Your task to perform on an android device: What's the weather going to be tomorrow? Image 0: 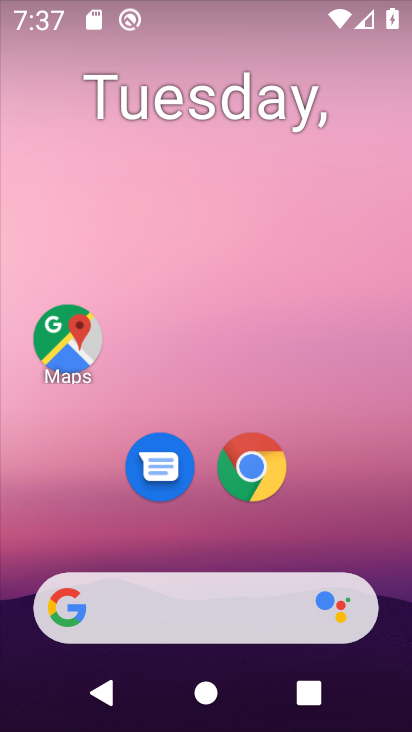
Step 0: drag from (1, 268) to (380, 237)
Your task to perform on an android device: What's the weather going to be tomorrow? Image 1: 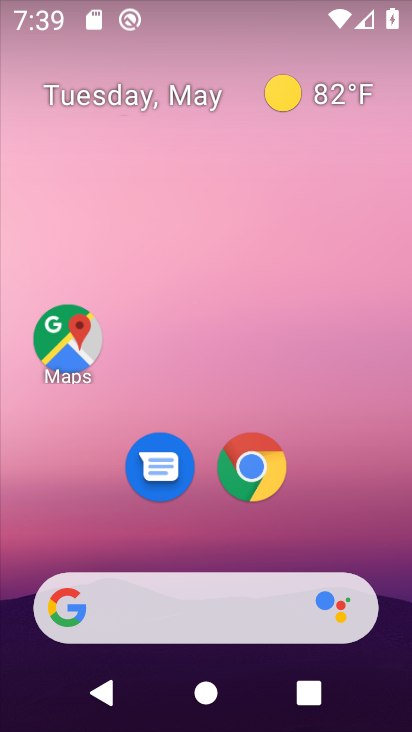
Step 1: click (324, 83)
Your task to perform on an android device: What's the weather going to be tomorrow? Image 2: 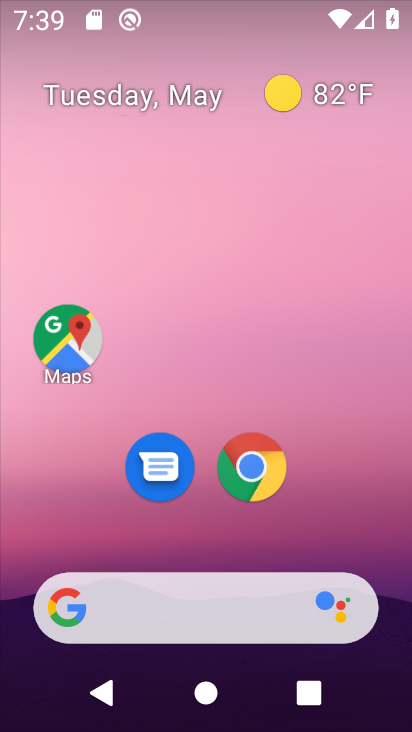
Step 2: click (328, 98)
Your task to perform on an android device: What's the weather going to be tomorrow? Image 3: 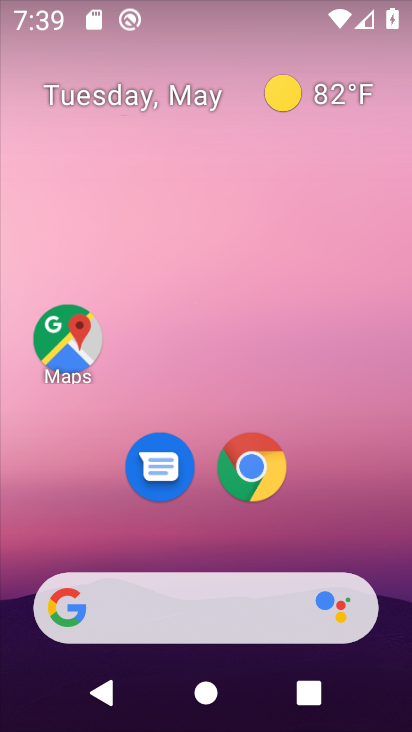
Step 3: drag from (1, 190) to (411, 195)
Your task to perform on an android device: What's the weather going to be tomorrow? Image 4: 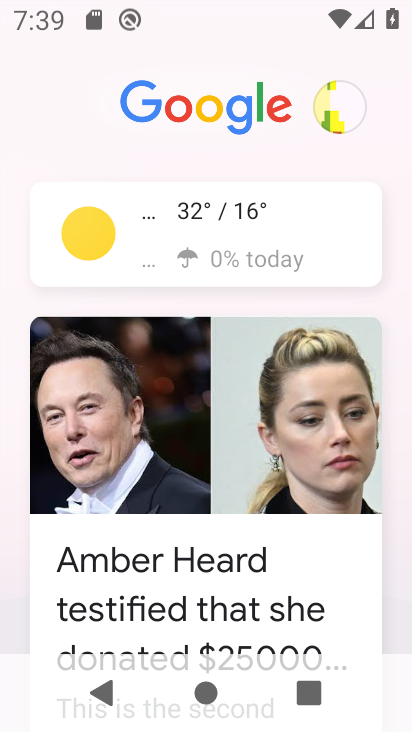
Step 4: drag from (294, 583) to (260, 390)
Your task to perform on an android device: What's the weather going to be tomorrow? Image 5: 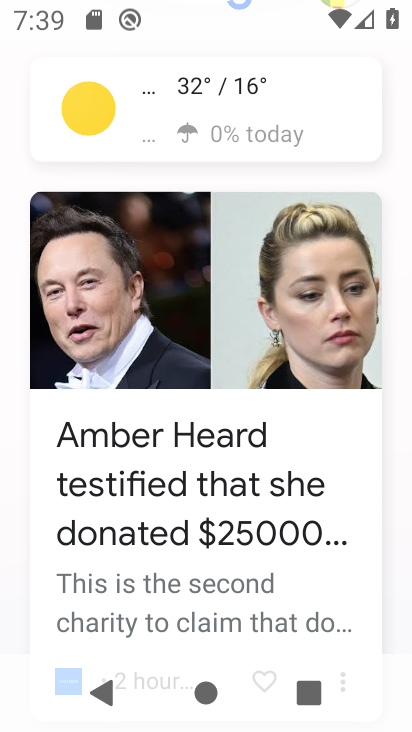
Step 5: drag from (270, 185) to (265, 498)
Your task to perform on an android device: What's the weather going to be tomorrow? Image 6: 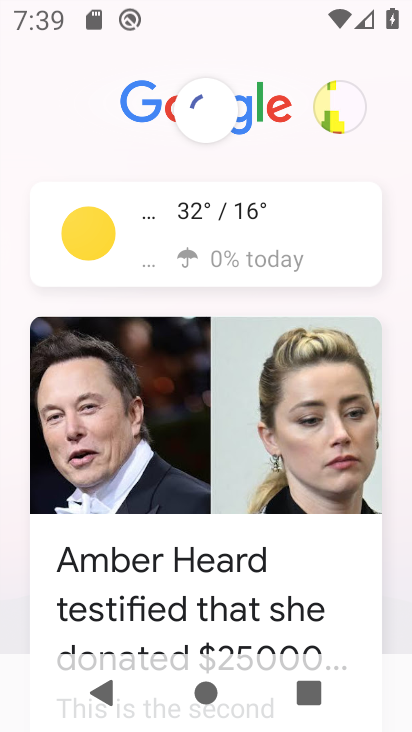
Step 6: click (240, 147)
Your task to perform on an android device: What's the weather going to be tomorrow? Image 7: 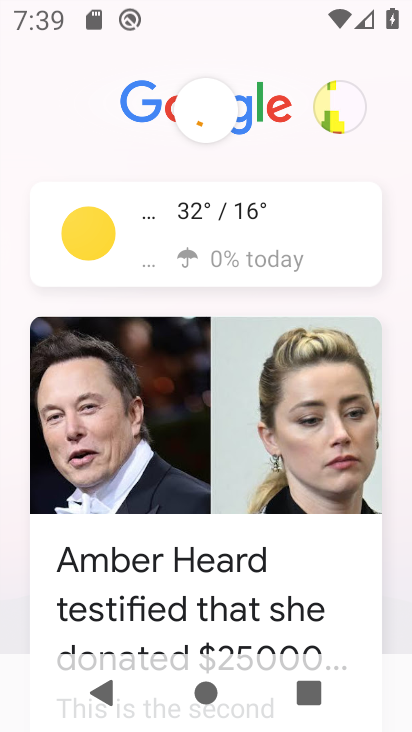
Step 7: click (239, 206)
Your task to perform on an android device: What's the weather going to be tomorrow? Image 8: 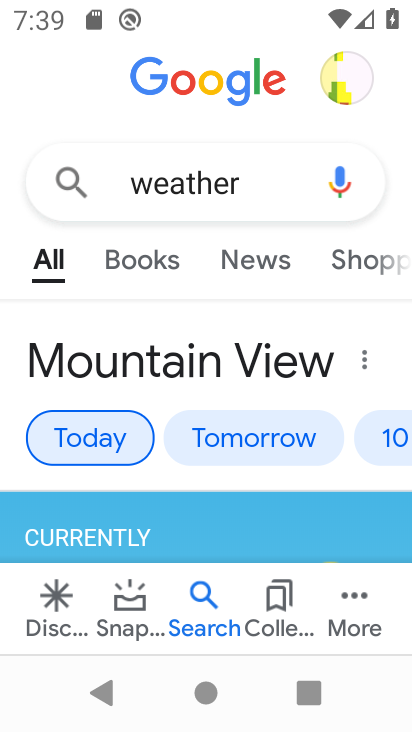
Step 8: click (222, 443)
Your task to perform on an android device: What's the weather going to be tomorrow? Image 9: 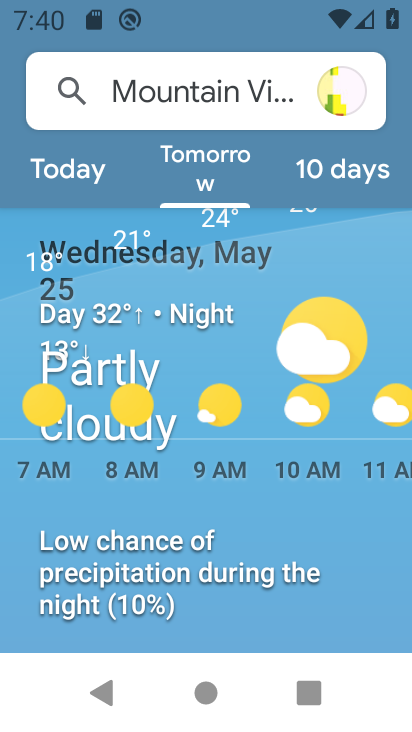
Step 9: task complete